Your task to perform on an android device: toggle javascript in the chrome app Image 0: 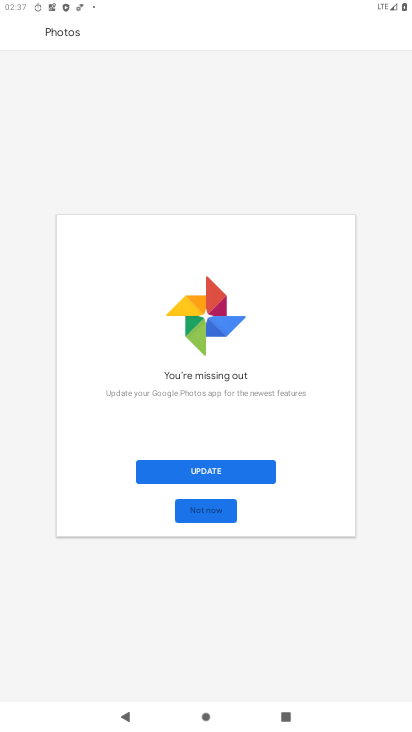
Step 0: press home button
Your task to perform on an android device: toggle javascript in the chrome app Image 1: 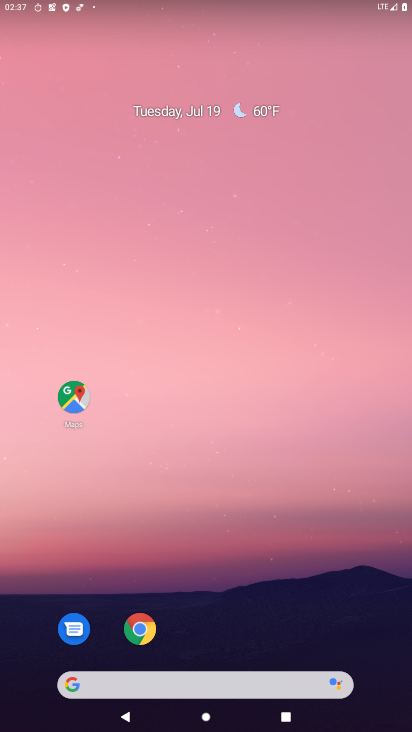
Step 1: click (159, 620)
Your task to perform on an android device: toggle javascript in the chrome app Image 2: 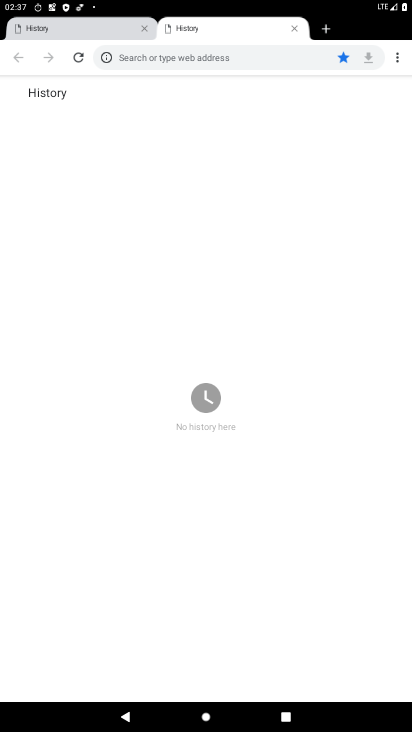
Step 2: click (396, 63)
Your task to perform on an android device: toggle javascript in the chrome app Image 3: 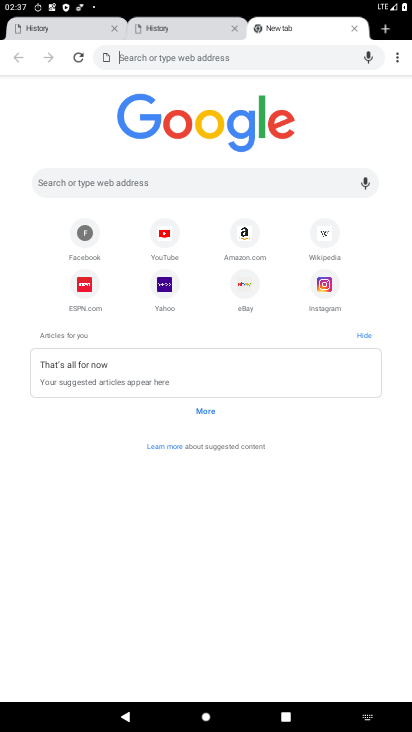
Step 3: click (396, 58)
Your task to perform on an android device: toggle javascript in the chrome app Image 4: 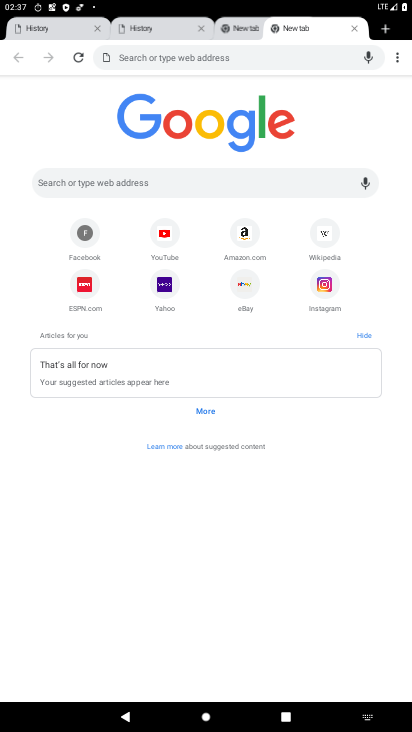
Step 4: click (396, 58)
Your task to perform on an android device: toggle javascript in the chrome app Image 5: 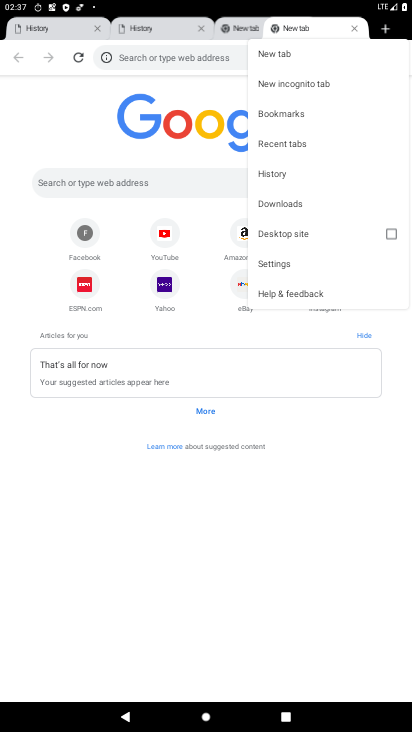
Step 5: click (287, 265)
Your task to perform on an android device: toggle javascript in the chrome app Image 6: 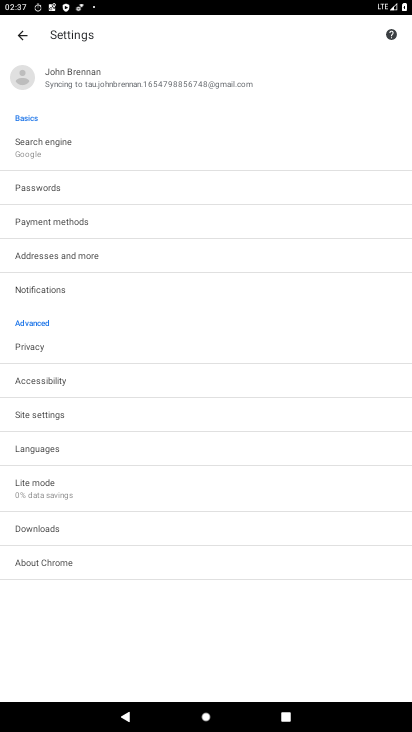
Step 6: click (71, 418)
Your task to perform on an android device: toggle javascript in the chrome app Image 7: 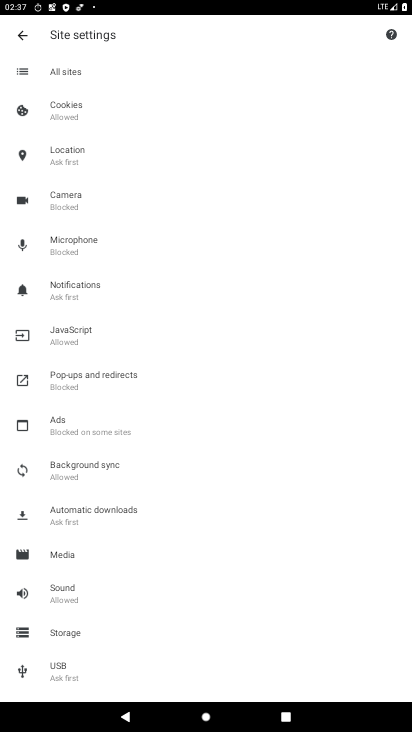
Step 7: click (76, 345)
Your task to perform on an android device: toggle javascript in the chrome app Image 8: 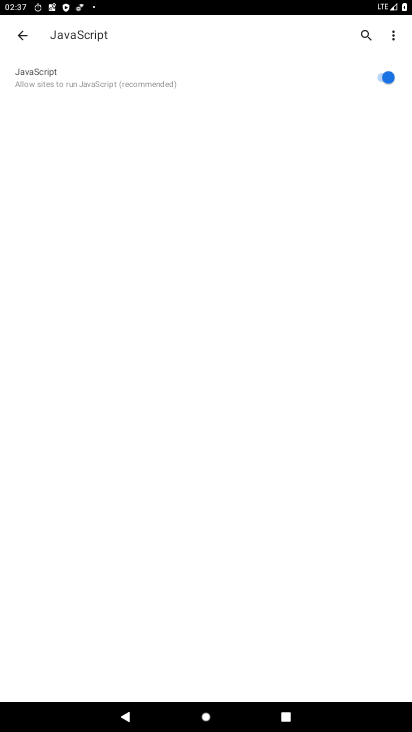
Step 8: click (378, 78)
Your task to perform on an android device: toggle javascript in the chrome app Image 9: 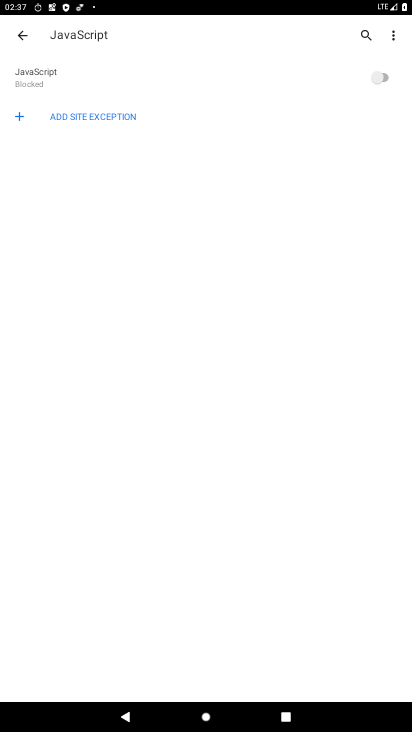
Step 9: task complete